Your task to perform on an android device: turn off notifications in google photos Image 0: 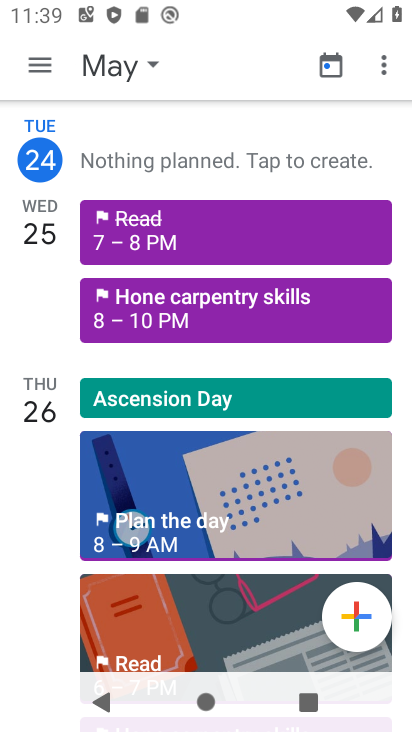
Step 0: press home button
Your task to perform on an android device: turn off notifications in google photos Image 1: 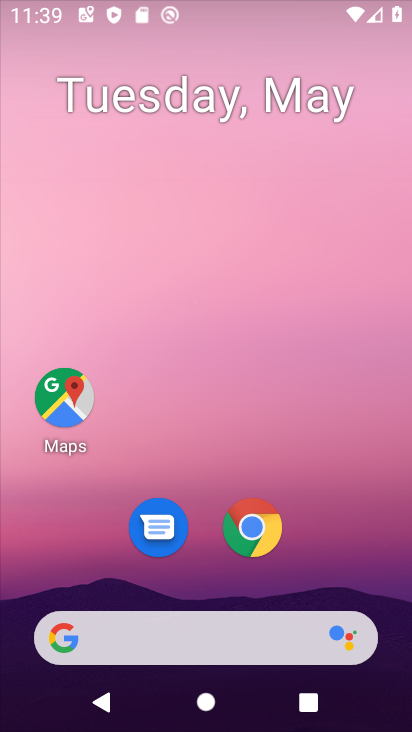
Step 1: drag from (307, 672) to (265, 55)
Your task to perform on an android device: turn off notifications in google photos Image 2: 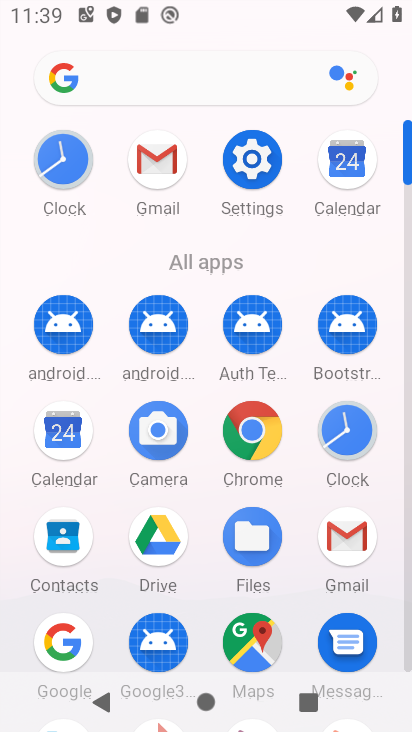
Step 2: drag from (371, 572) to (371, 489)
Your task to perform on an android device: turn off notifications in google photos Image 3: 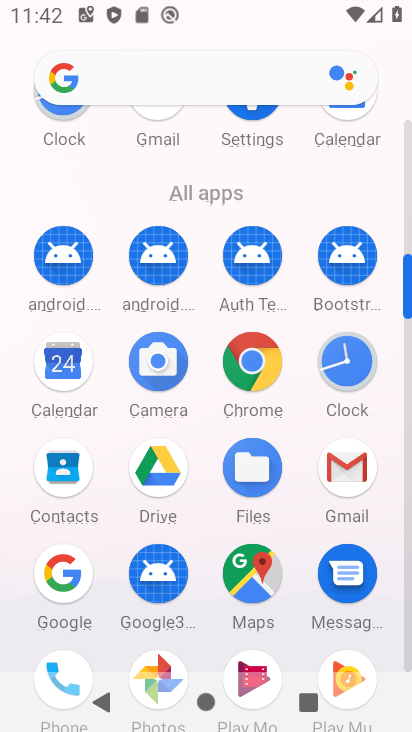
Step 3: click (175, 664)
Your task to perform on an android device: turn off notifications in google photos Image 4: 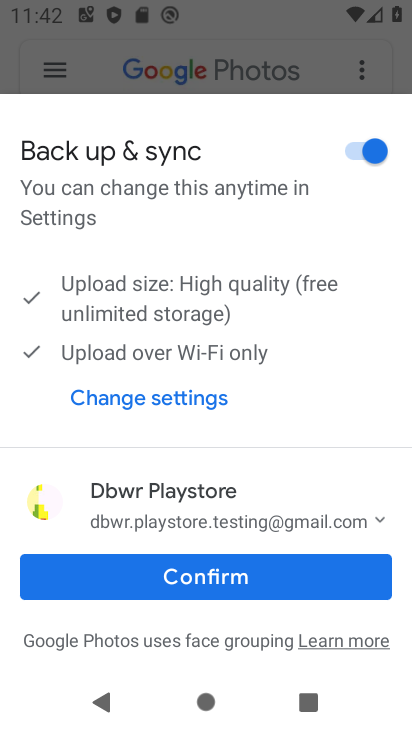
Step 4: click (192, 584)
Your task to perform on an android device: turn off notifications in google photos Image 5: 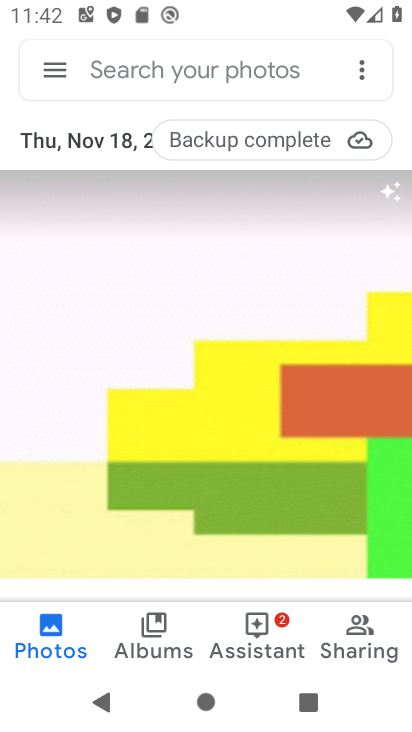
Step 5: click (50, 70)
Your task to perform on an android device: turn off notifications in google photos Image 6: 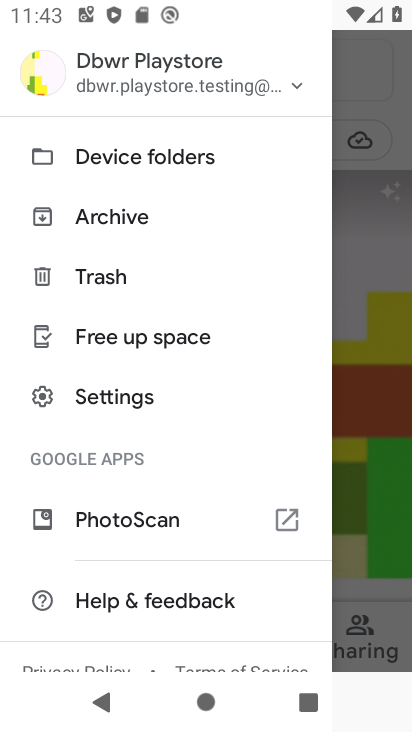
Step 6: click (100, 401)
Your task to perform on an android device: turn off notifications in google photos Image 7: 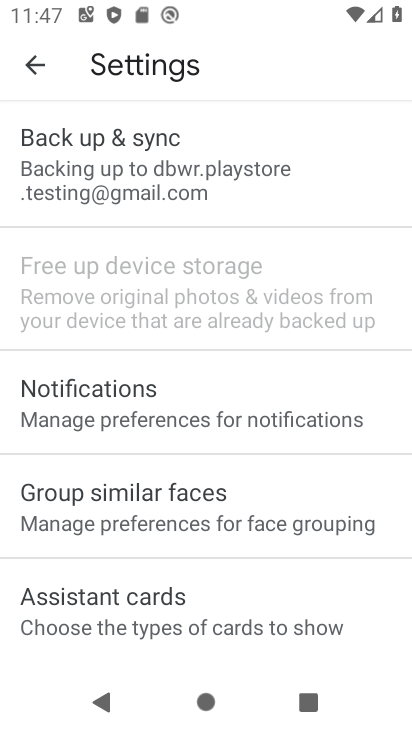
Step 7: task complete